Your task to perform on an android device: Check the weather Image 0: 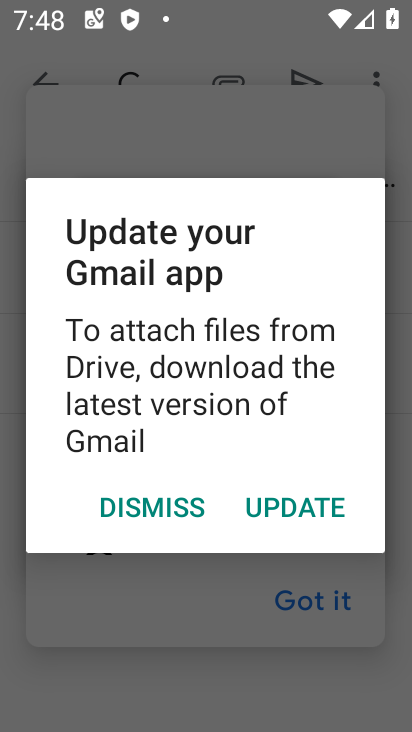
Step 0: press home button
Your task to perform on an android device: Check the weather Image 1: 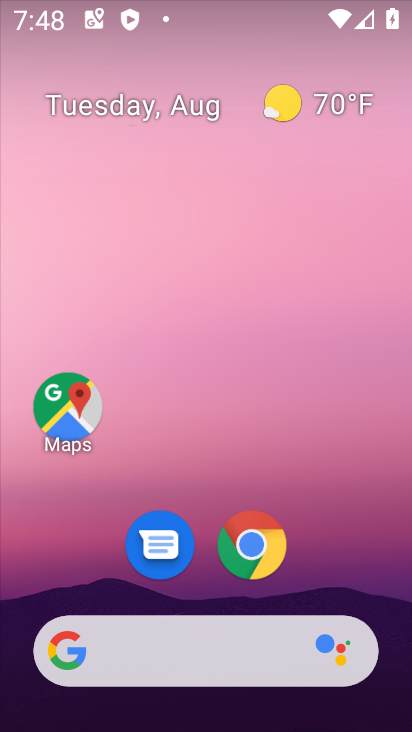
Step 1: drag from (238, 654) to (246, 1)
Your task to perform on an android device: Check the weather Image 2: 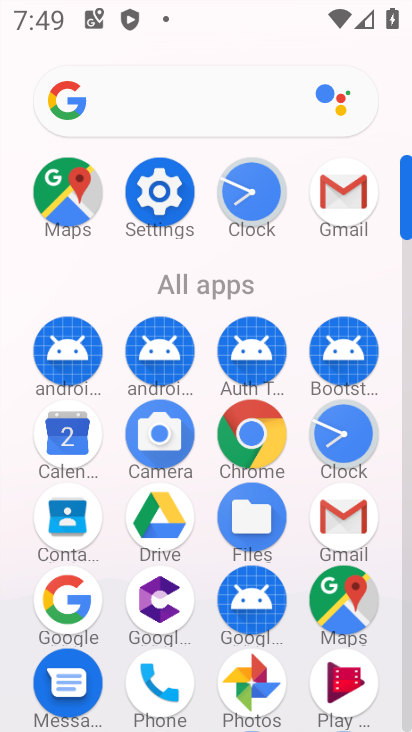
Step 2: click (70, 596)
Your task to perform on an android device: Check the weather Image 3: 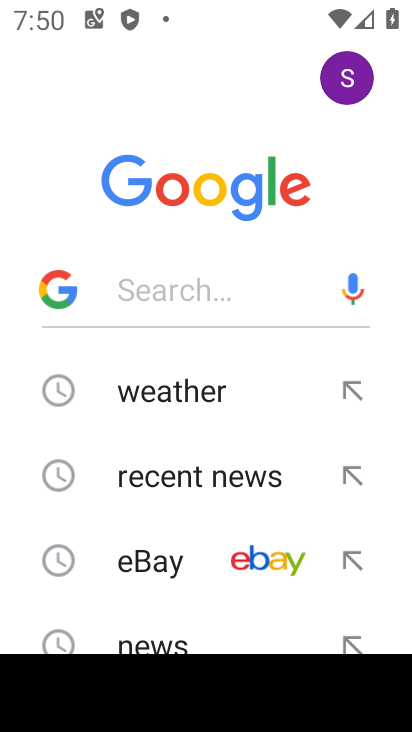
Step 3: click (208, 394)
Your task to perform on an android device: Check the weather Image 4: 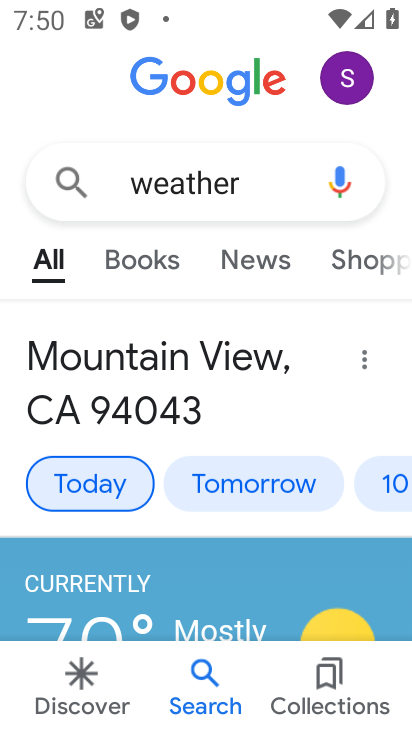
Step 4: task complete